Your task to perform on an android device: Open calendar and show me the fourth week of next month Image 0: 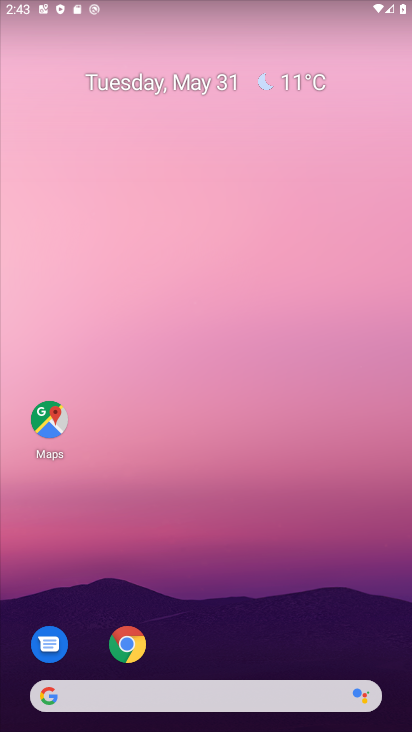
Step 0: click (258, 628)
Your task to perform on an android device: Open calendar and show me the fourth week of next month Image 1: 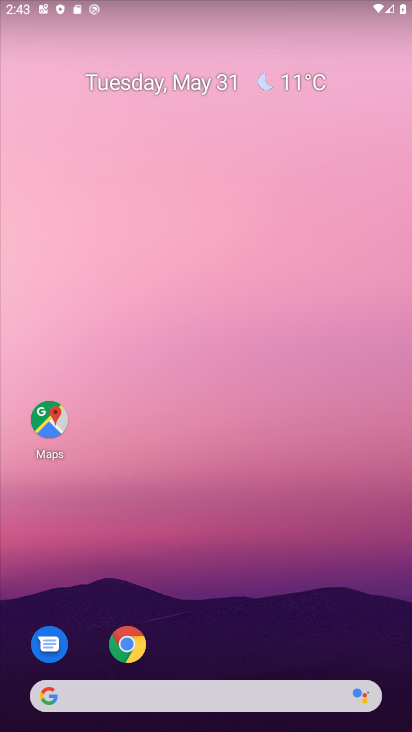
Step 1: drag from (285, 608) to (265, 151)
Your task to perform on an android device: Open calendar and show me the fourth week of next month Image 2: 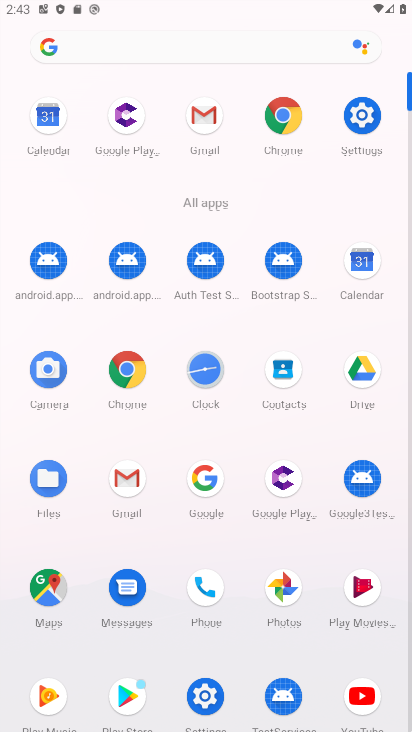
Step 2: click (382, 263)
Your task to perform on an android device: Open calendar and show me the fourth week of next month Image 3: 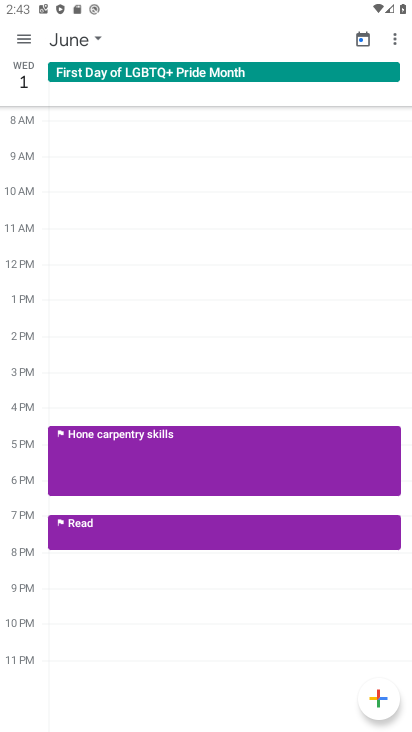
Step 3: click (24, 38)
Your task to perform on an android device: Open calendar and show me the fourth week of next month Image 4: 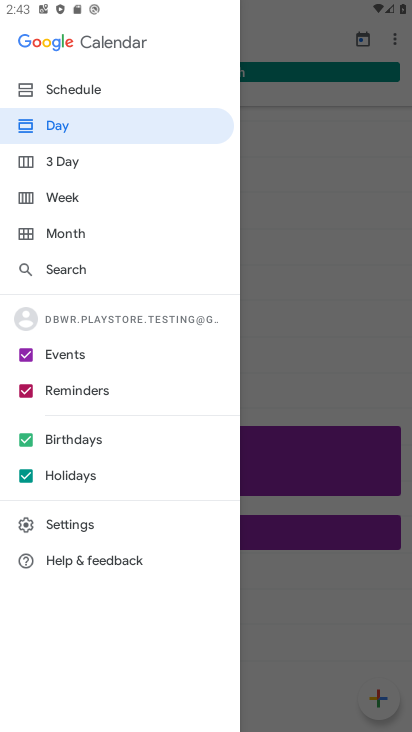
Step 4: click (77, 196)
Your task to perform on an android device: Open calendar and show me the fourth week of next month Image 5: 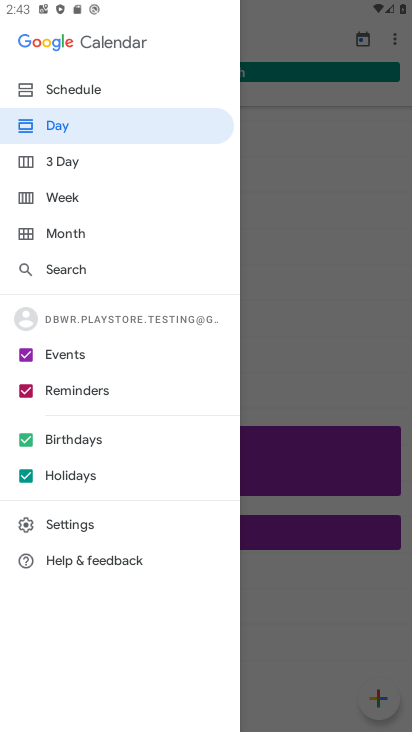
Step 5: click (77, 196)
Your task to perform on an android device: Open calendar and show me the fourth week of next month Image 6: 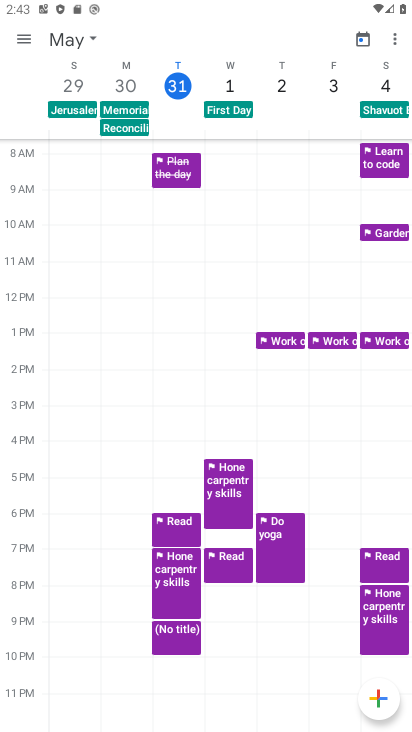
Step 6: task complete